Your task to perform on an android device: refresh tabs in the chrome app Image 0: 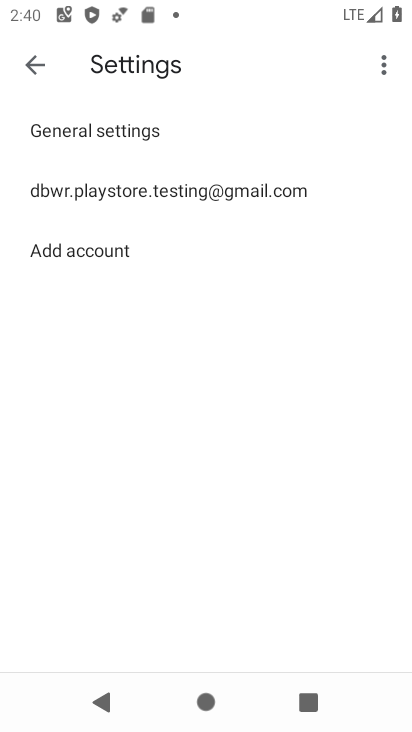
Step 0: press home button
Your task to perform on an android device: refresh tabs in the chrome app Image 1: 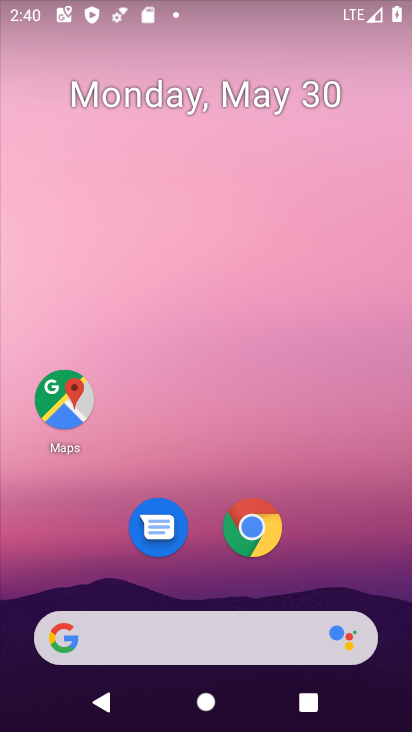
Step 1: click (261, 538)
Your task to perform on an android device: refresh tabs in the chrome app Image 2: 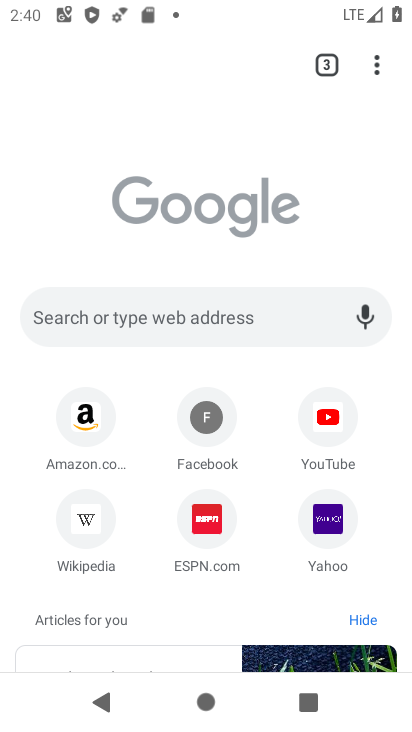
Step 2: click (376, 65)
Your task to perform on an android device: refresh tabs in the chrome app Image 3: 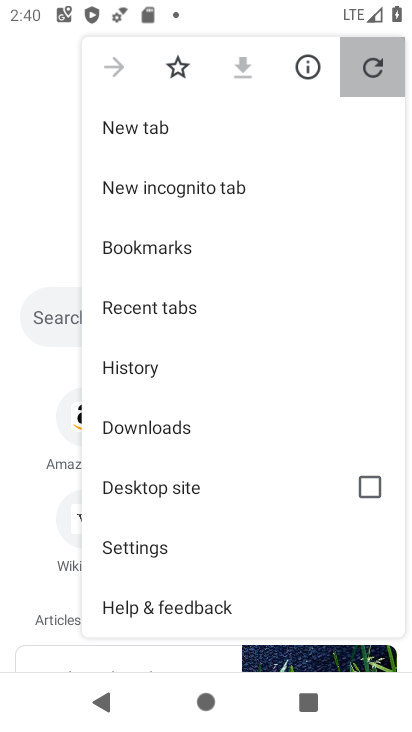
Step 3: click (376, 65)
Your task to perform on an android device: refresh tabs in the chrome app Image 4: 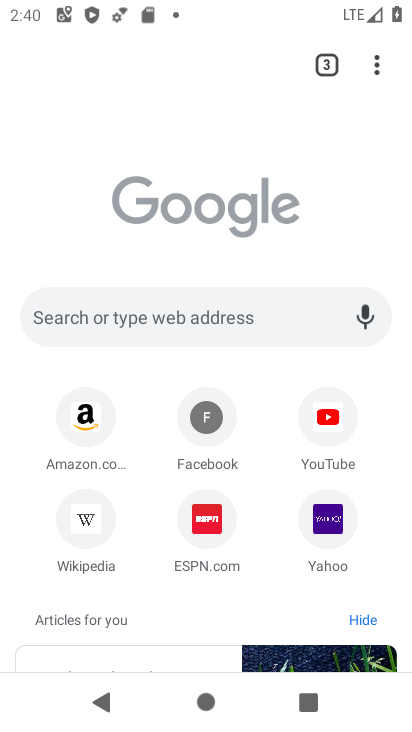
Step 4: task complete